Your task to perform on an android device: turn on wifi Image 0: 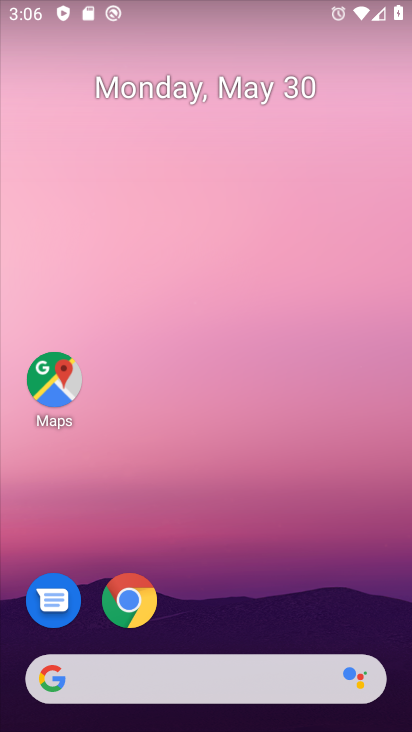
Step 0: drag from (217, 729) to (218, 60)
Your task to perform on an android device: turn on wifi Image 1: 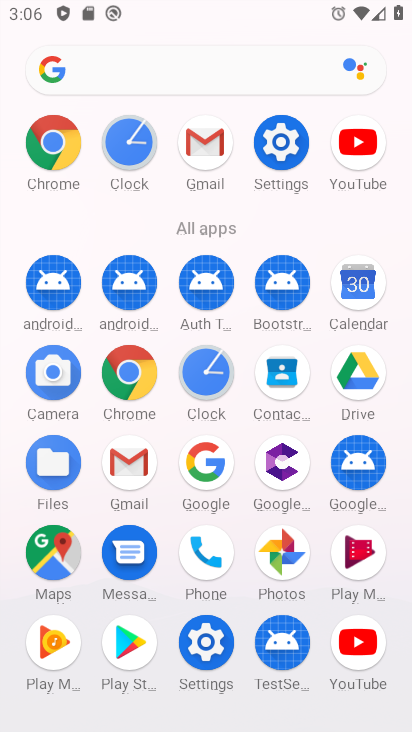
Step 1: click (284, 141)
Your task to perform on an android device: turn on wifi Image 2: 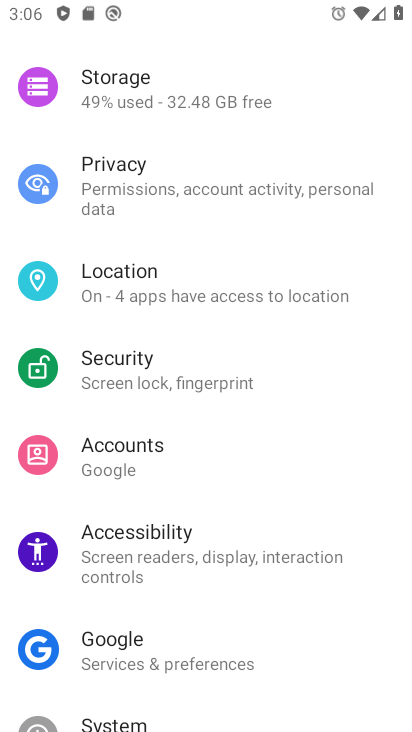
Step 2: drag from (220, 144) to (233, 471)
Your task to perform on an android device: turn on wifi Image 3: 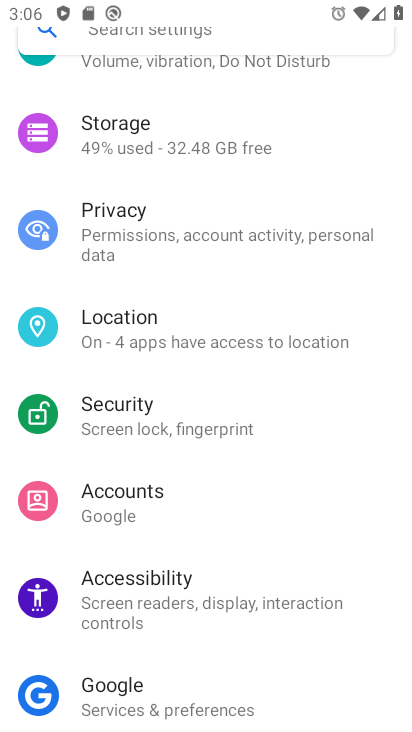
Step 3: drag from (211, 101) to (229, 496)
Your task to perform on an android device: turn on wifi Image 4: 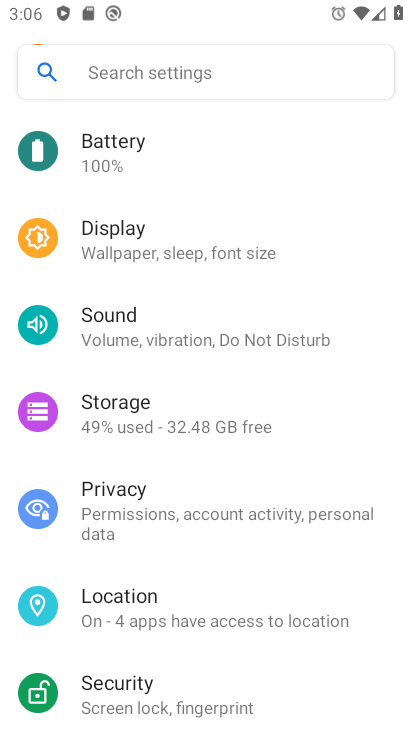
Step 4: drag from (196, 174) to (235, 631)
Your task to perform on an android device: turn on wifi Image 5: 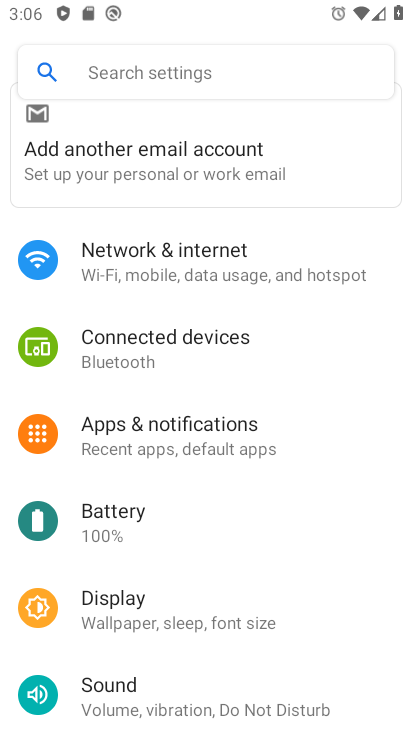
Step 5: click (178, 260)
Your task to perform on an android device: turn on wifi Image 6: 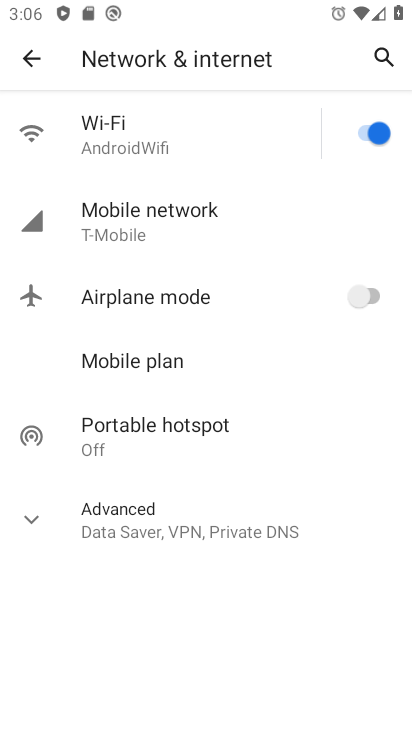
Step 6: task complete